Your task to perform on an android device: refresh tabs in the chrome app Image 0: 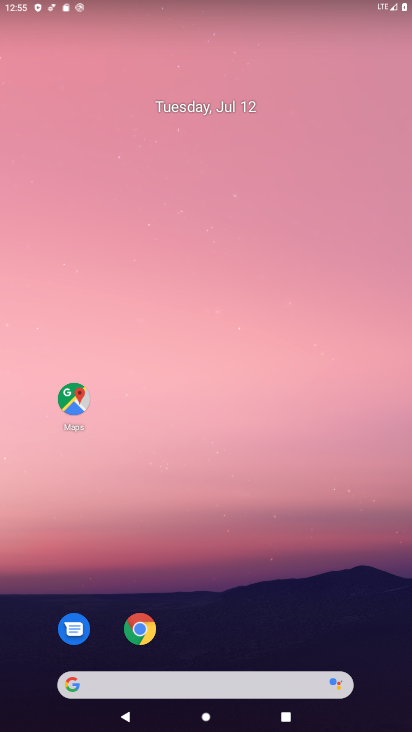
Step 0: drag from (324, 556) to (333, 61)
Your task to perform on an android device: refresh tabs in the chrome app Image 1: 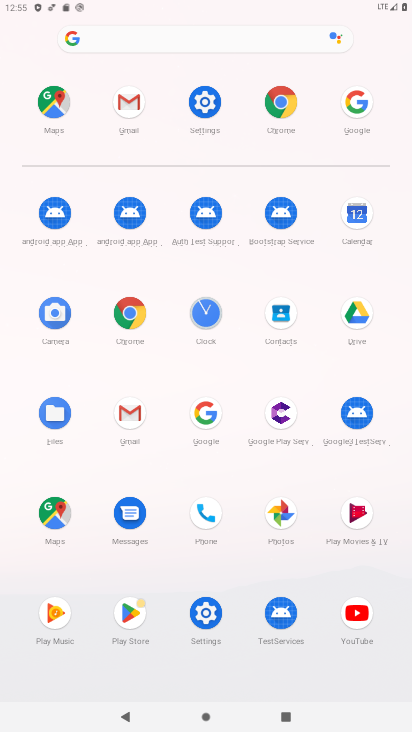
Step 1: click (134, 320)
Your task to perform on an android device: refresh tabs in the chrome app Image 2: 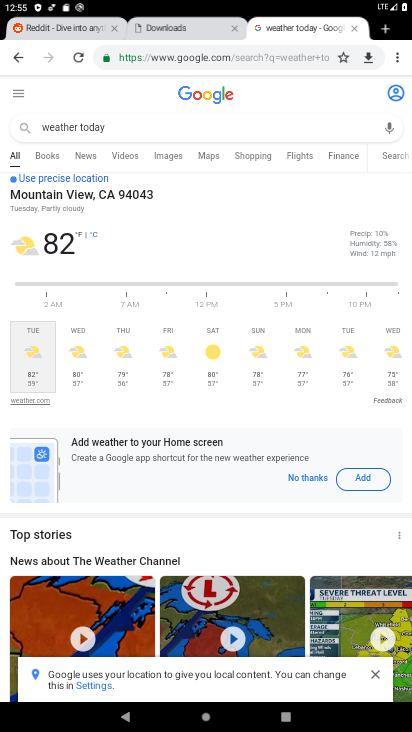
Step 2: drag from (398, 55) to (180, 96)
Your task to perform on an android device: refresh tabs in the chrome app Image 3: 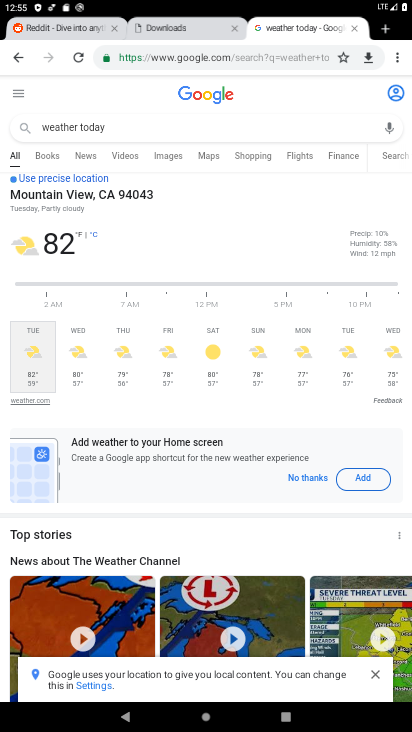
Step 3: click (125, 94)
Your task to perform on an android device: refresh tabs in the chrome app Image 4: 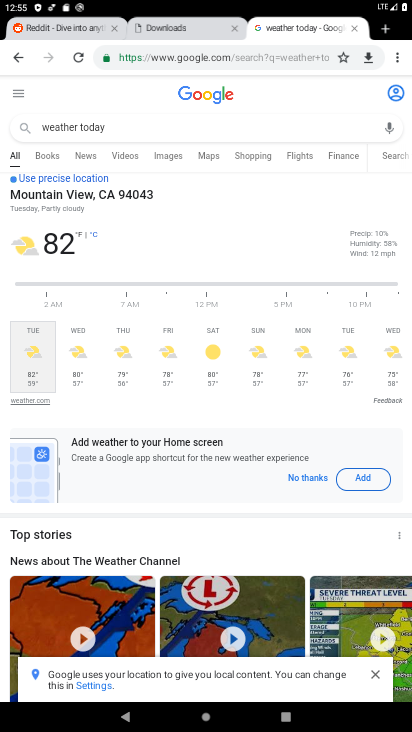
Step 4: click (73, 55)
Your task to perform on an android device: refresh tabs in the chrome app Image 5: 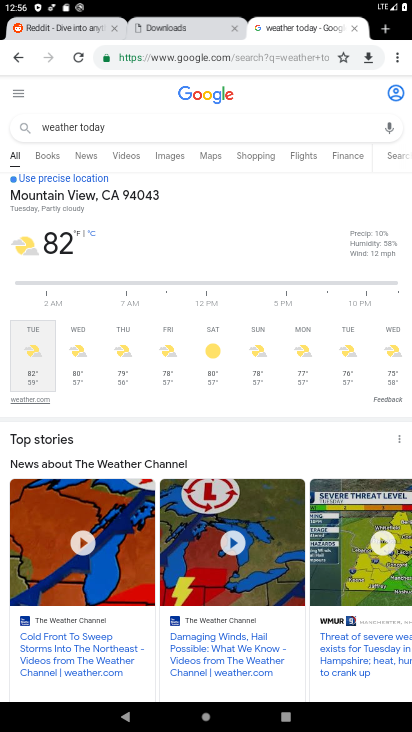
Step 5: task complete